Your task to perform on an android device: open app "Microsoft Excel" Image 0: 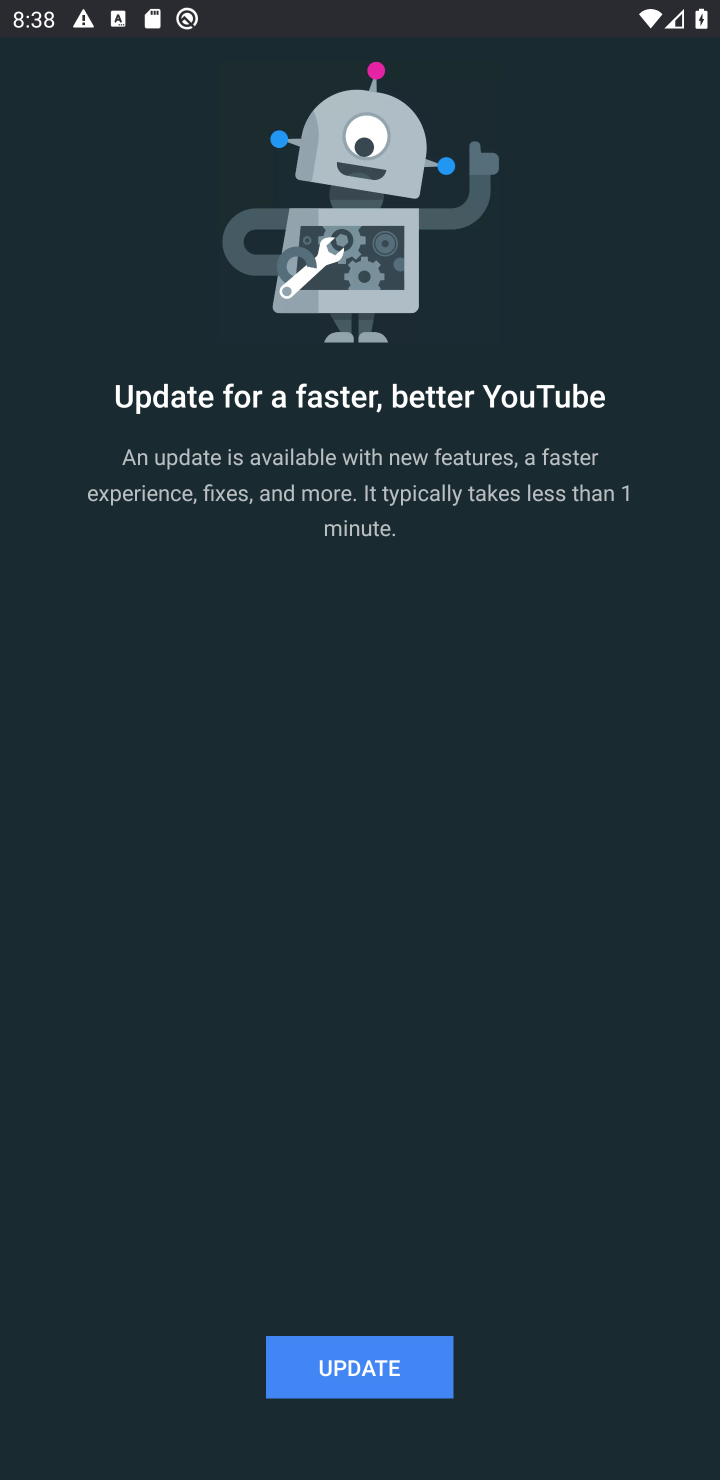
Step 0: press home button
Your task to perform on an android device: open app "Microsoft Excel" Image 1: 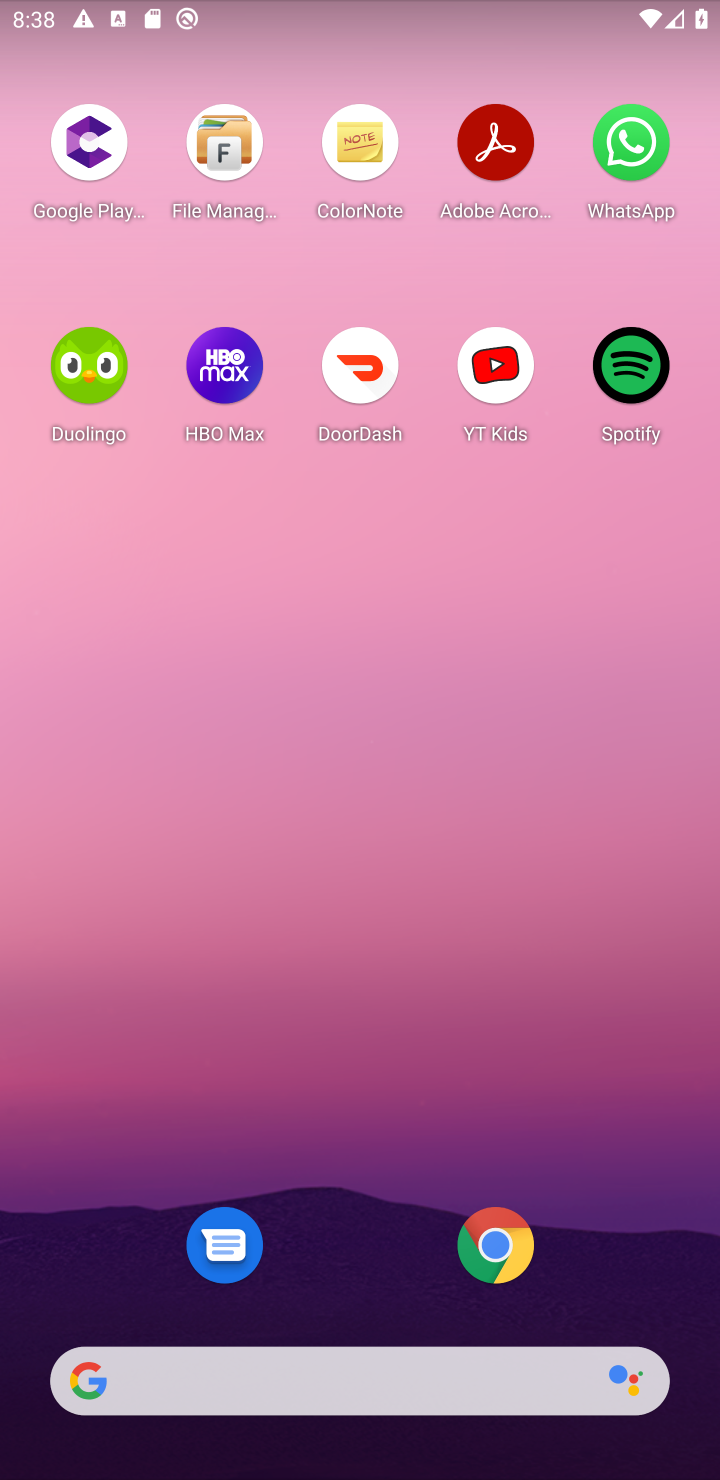
Step 1: drag from (341, 1124) to (682, 860)
Your task to perform on an android device: open app "Microsoft Excel" Image 2: 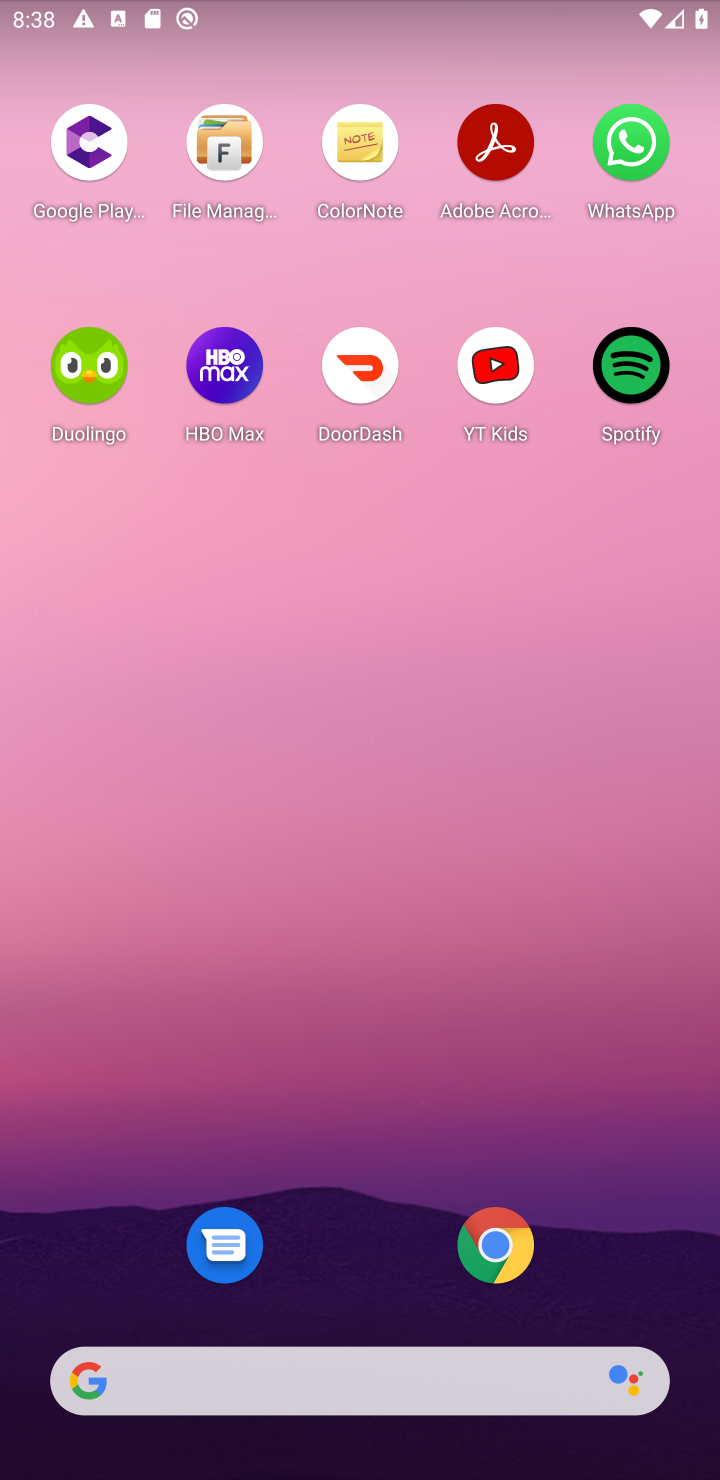
Step 2: drag from (324, 728) to (325, 48)
Your task to perform on an android device: open app "Microsoft Excel" Image 3: 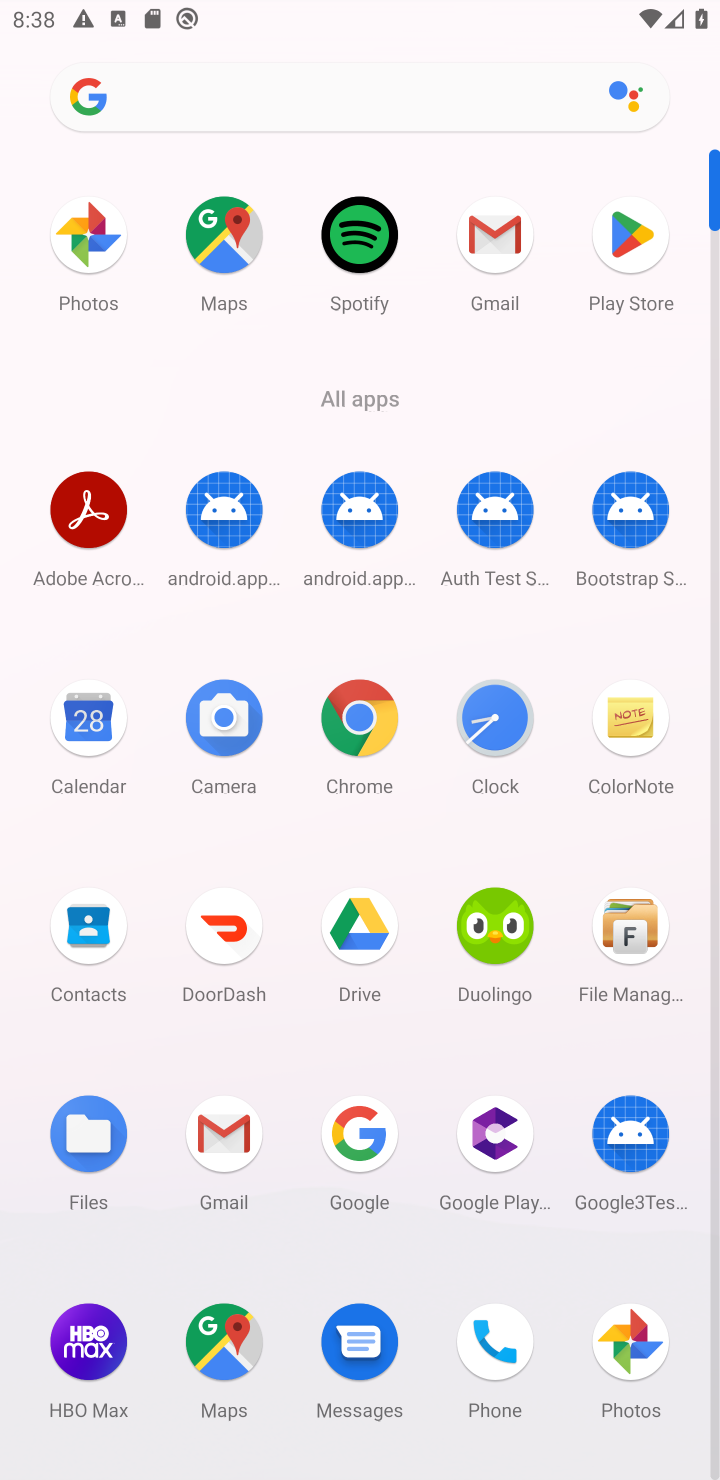
Step 3: click (609, 214)
Your task to perform on an android device: open app "Microsoft Excel" Image 4: 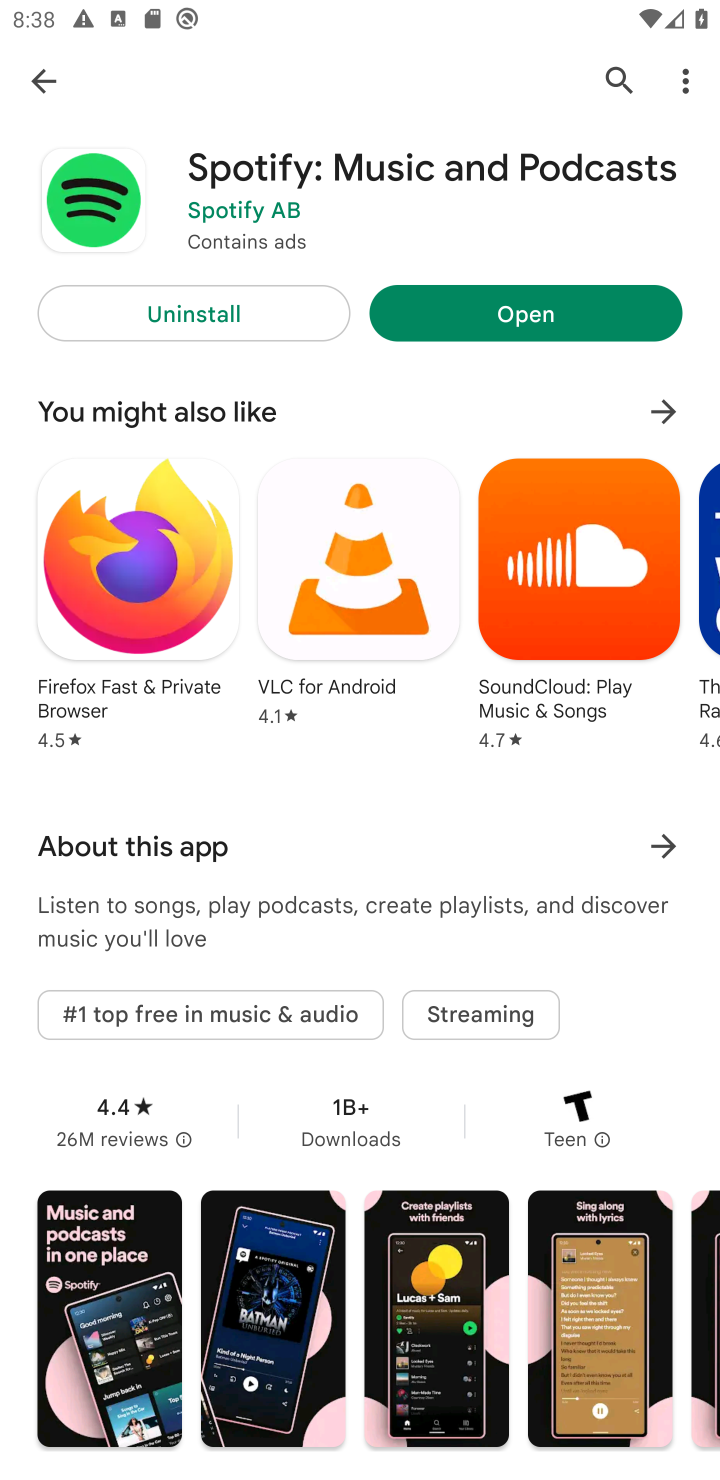
Step 4: click (620, 77)
Your task to perform on an android device: open app "Microsoft Excel" Image 5: 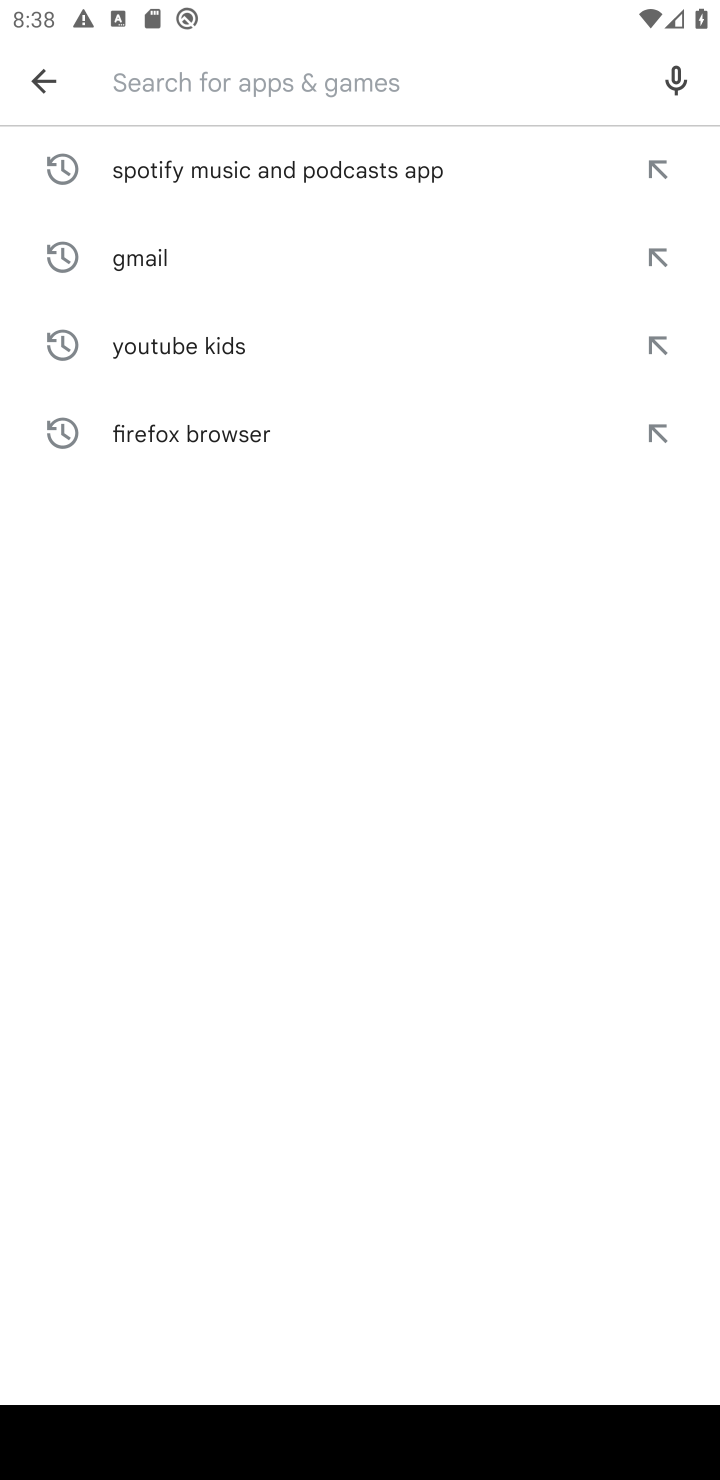
Step 5: type "Microsoft Excel"
Your task to perform on an android device: open app "Microsoft Excel" Image 6: 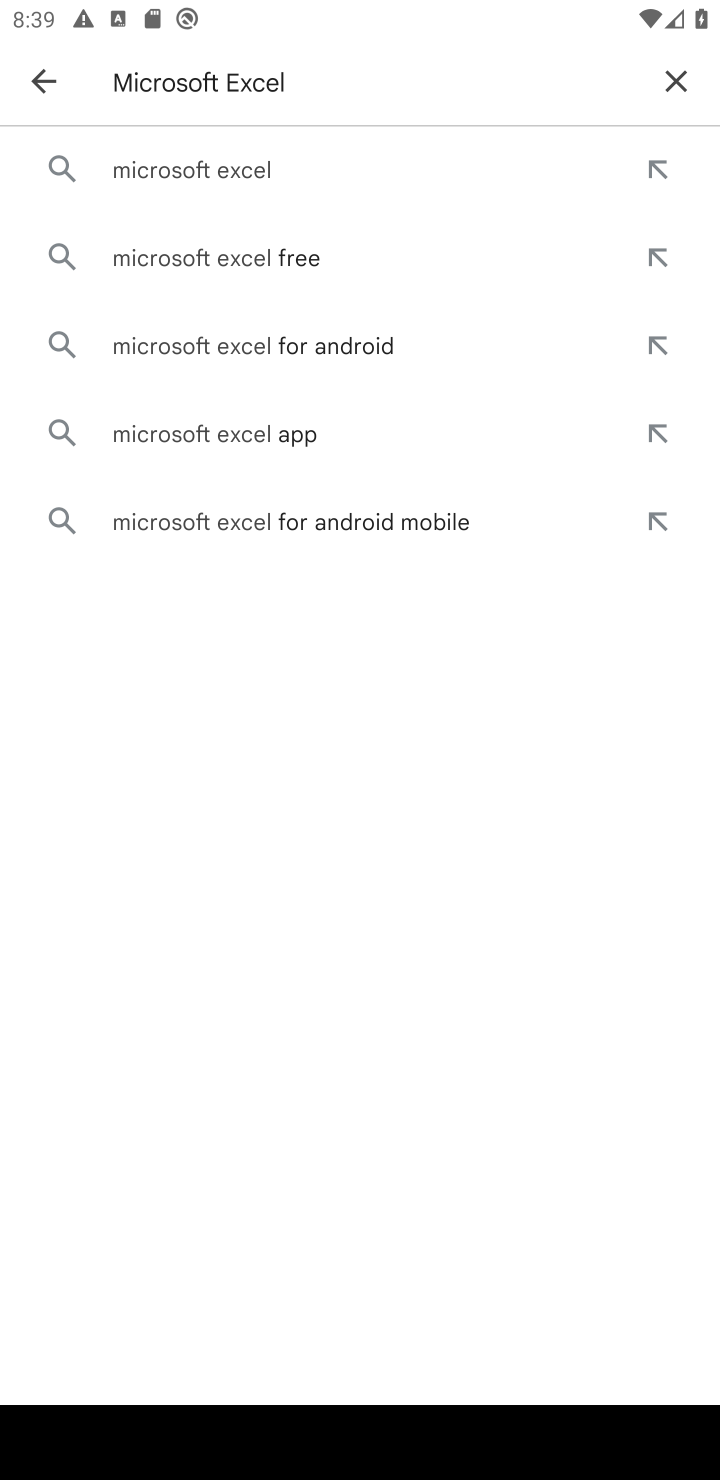
Step 6: click (399, 176)
Your task to perform on an android device: open app "Microsoft Excel" Image 7: 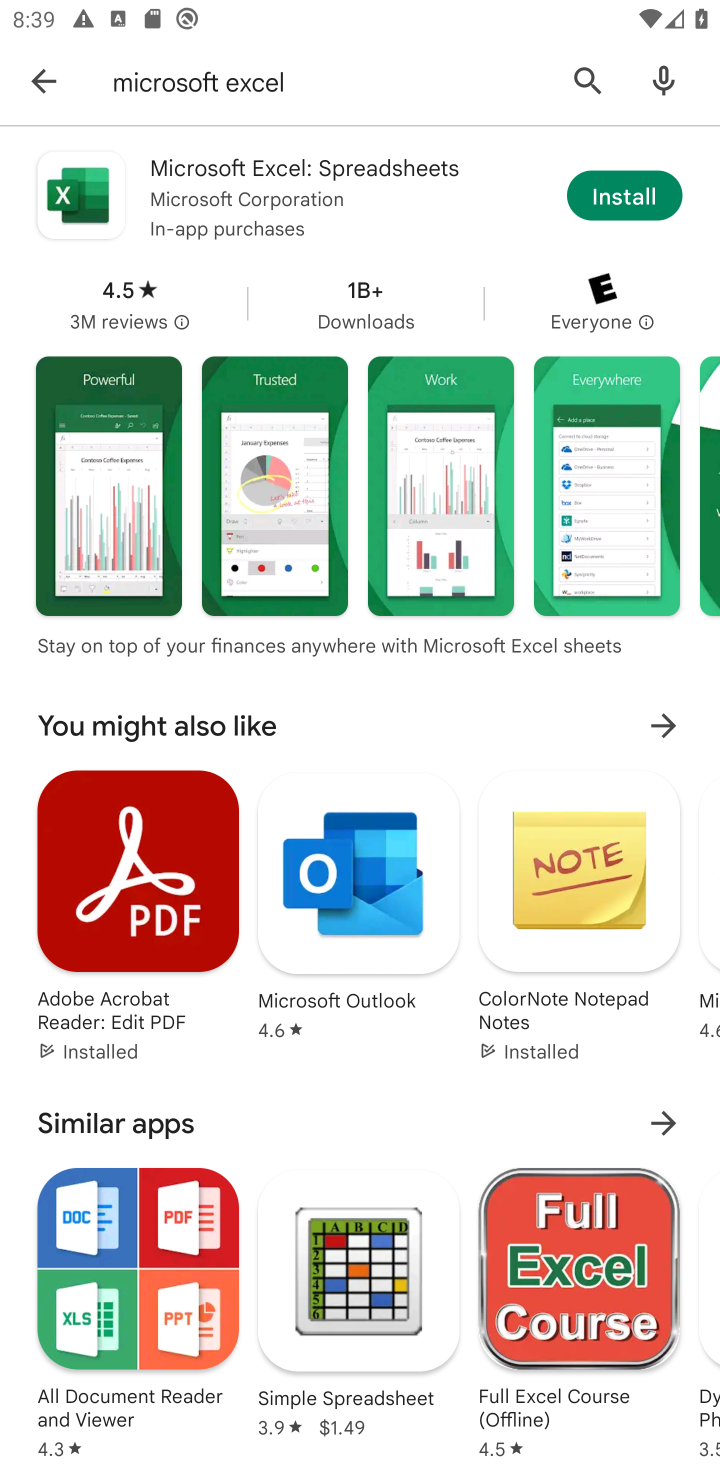
Step 7: click (270, 146)
Your task to perform on an android device: open app "Microsoft Excel" Image 8: 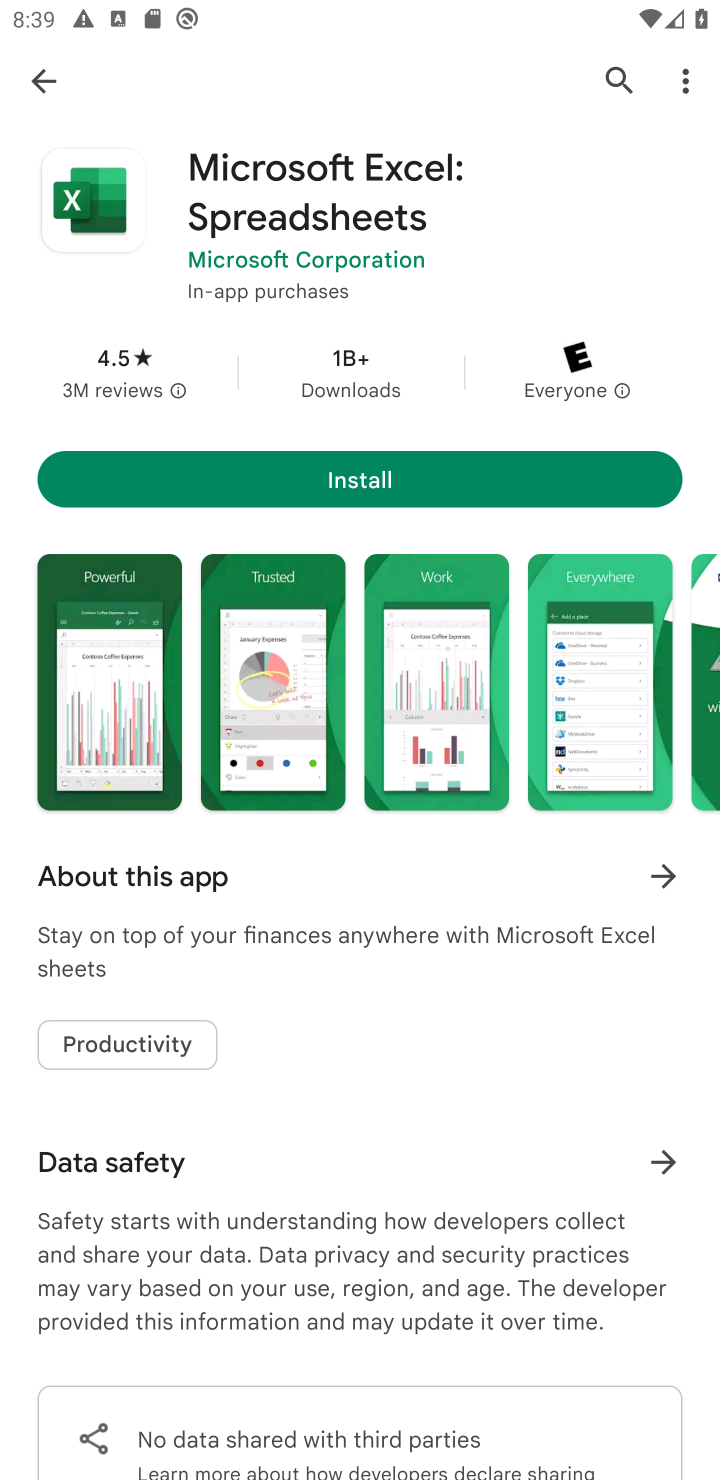
Step 8: task complete